Your task to perform on an android device: Search for Italian restaurants on Maps Image 0: 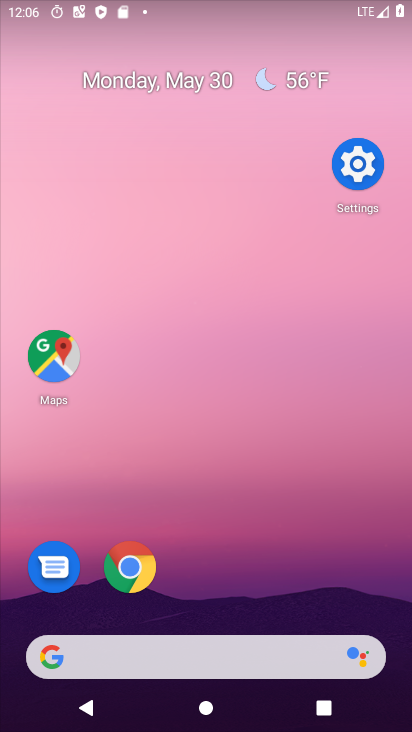
Step 0: drag from (332, 569) to (240, 173)
Your task to perform on an android device: Search for Italian restaurants on Maps Image 1: 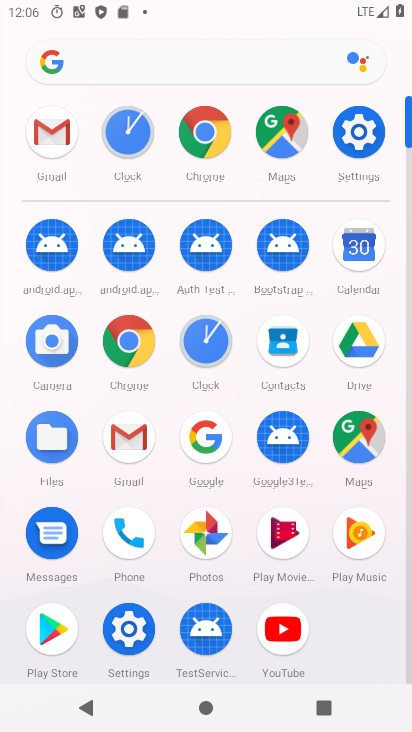
Step 1: click (376, 442)
Your task to perform on an android device: Search for Italian restaurants on Maps Image 2: 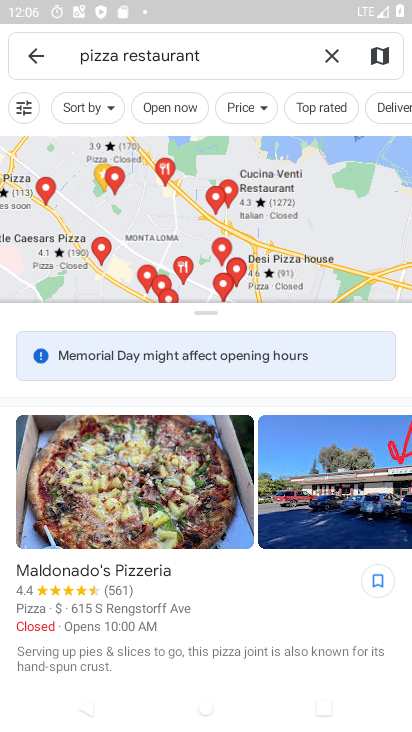
Step 2: click (338, 63)
Your task to perform on an android device: Search for Italian restaurants on Maps Image 3: 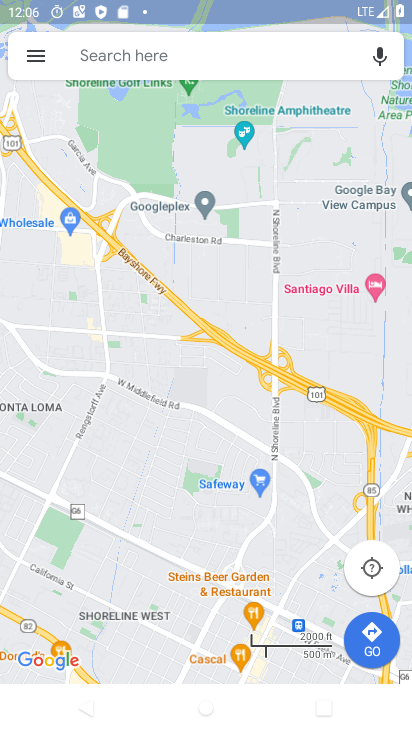
Step 3: click (248, 64)
Your task to perform on an android device: Search for Italian restaurants on Maps Image 4: 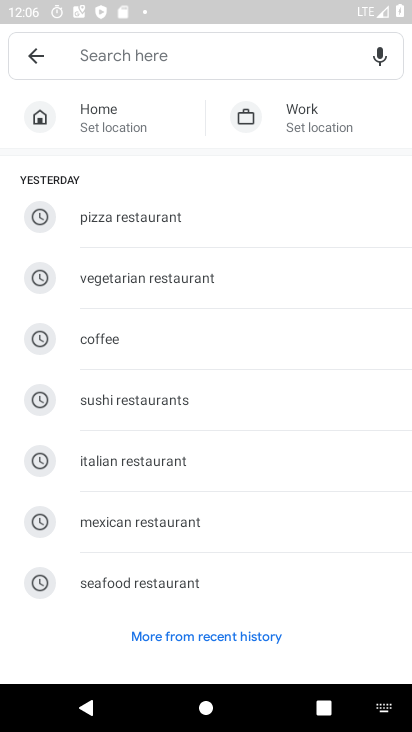
Step 4: click (189, 459)
Your task to perform on an android device: Search for Italian restaurants on Maps Image 5: 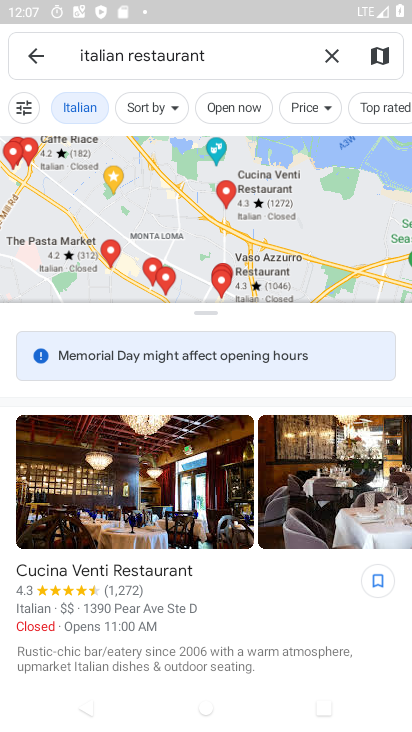
Step 5: task complete